Your task to perform on an android device: show emergency info Image 0: 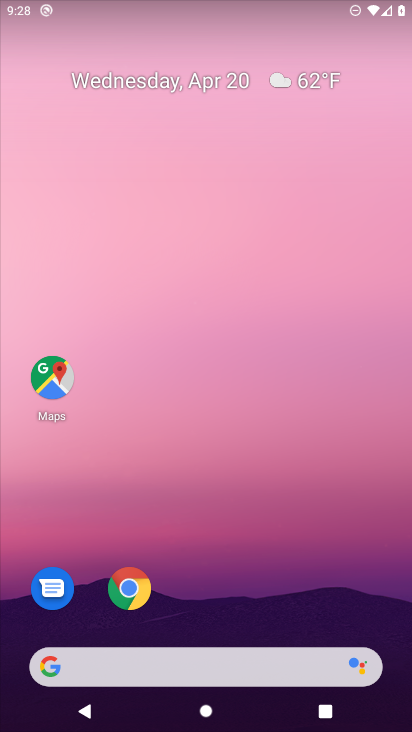
Step 0: drag from (218, 595) to (228, 77)
Your task to perform on an android device: show emergency info Image 1: 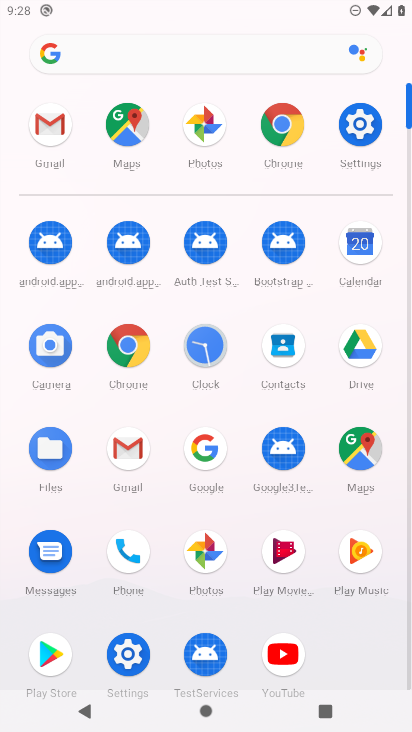
Step 1: click (354, 118)
Your task to perform on an android device: show emergency info Image 2: 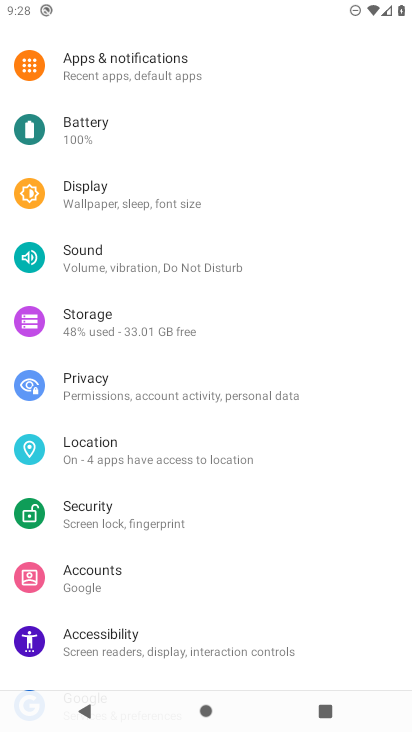
Step 2: drag from (177, 614) to (226, 118)
Your task to perform on an android device: show emergency info Image 3: 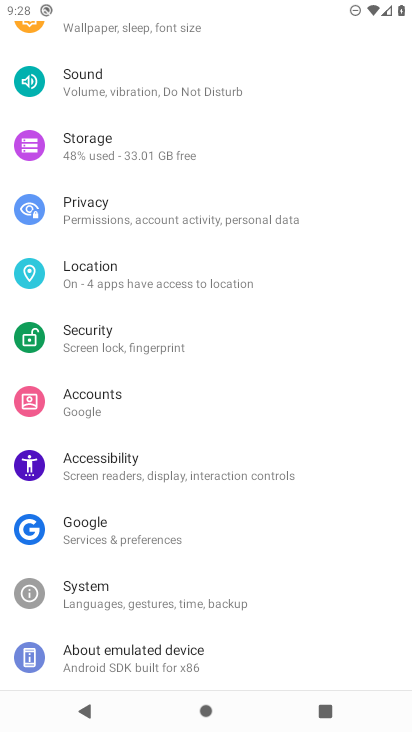
Step 3: click (193, 657)
Your task to perform on an android device: show emergency info Image 4: 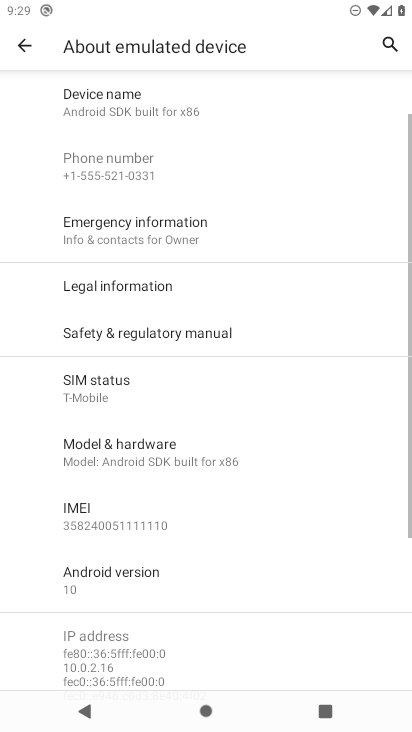
Step 4: click (223, 231)
Your task to perform on an android device: show emergency info Image 5: 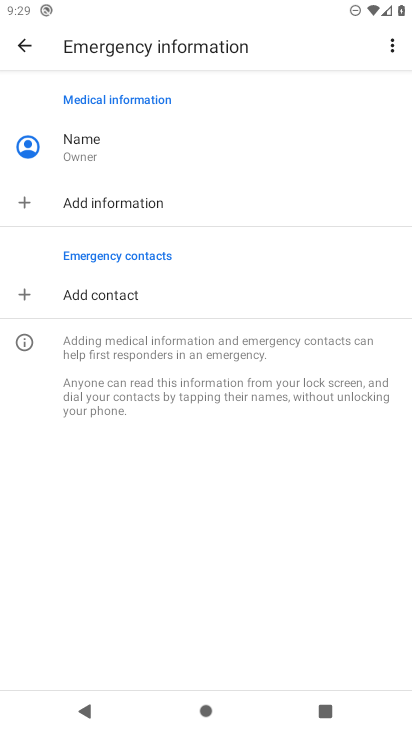
Step 5: task complete